Your task to perform on an android device: Clear the cart on walmart. Image 0: 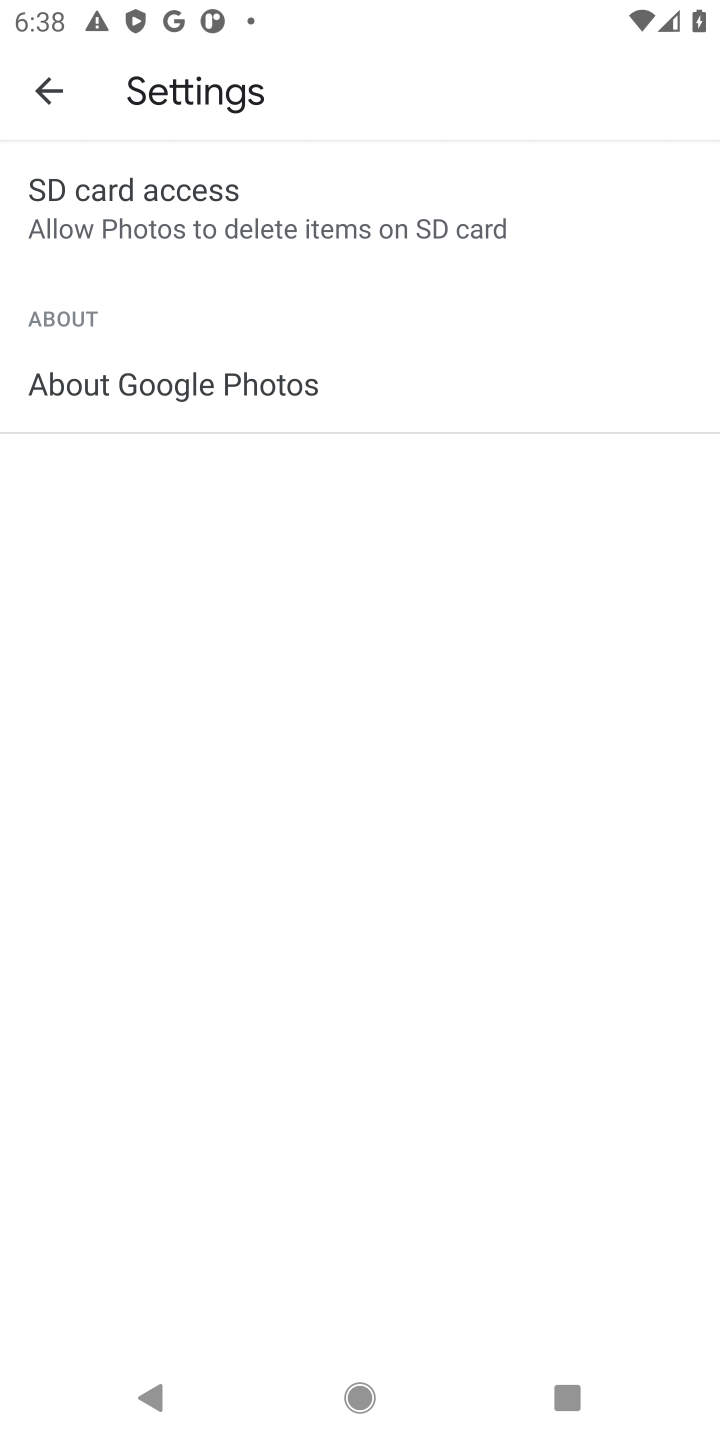
Step 0: press home button
Your task to perform on an android device: Clear the cart on walmart. Image 1: 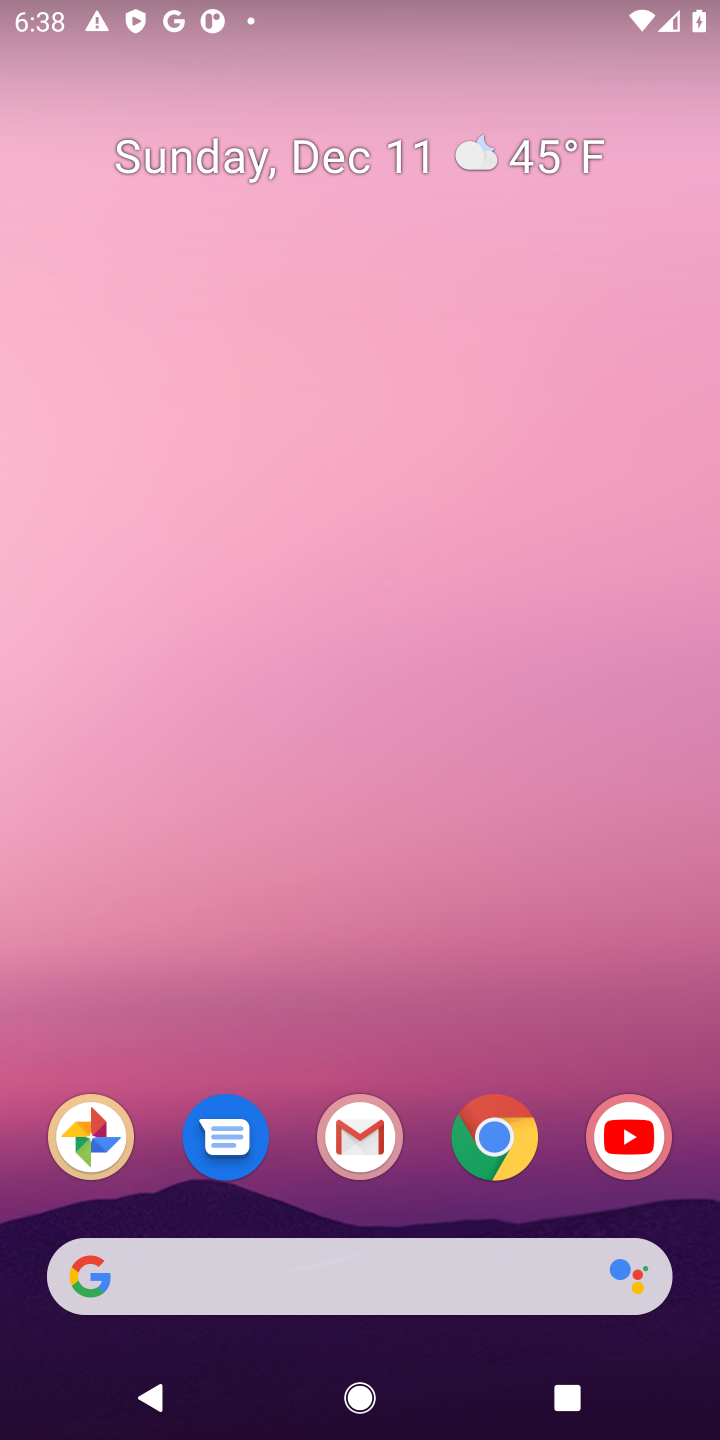
Step 1: click (497, 1185)
Your task to perform on an android device: Clear the cart on walmart. Image 2: 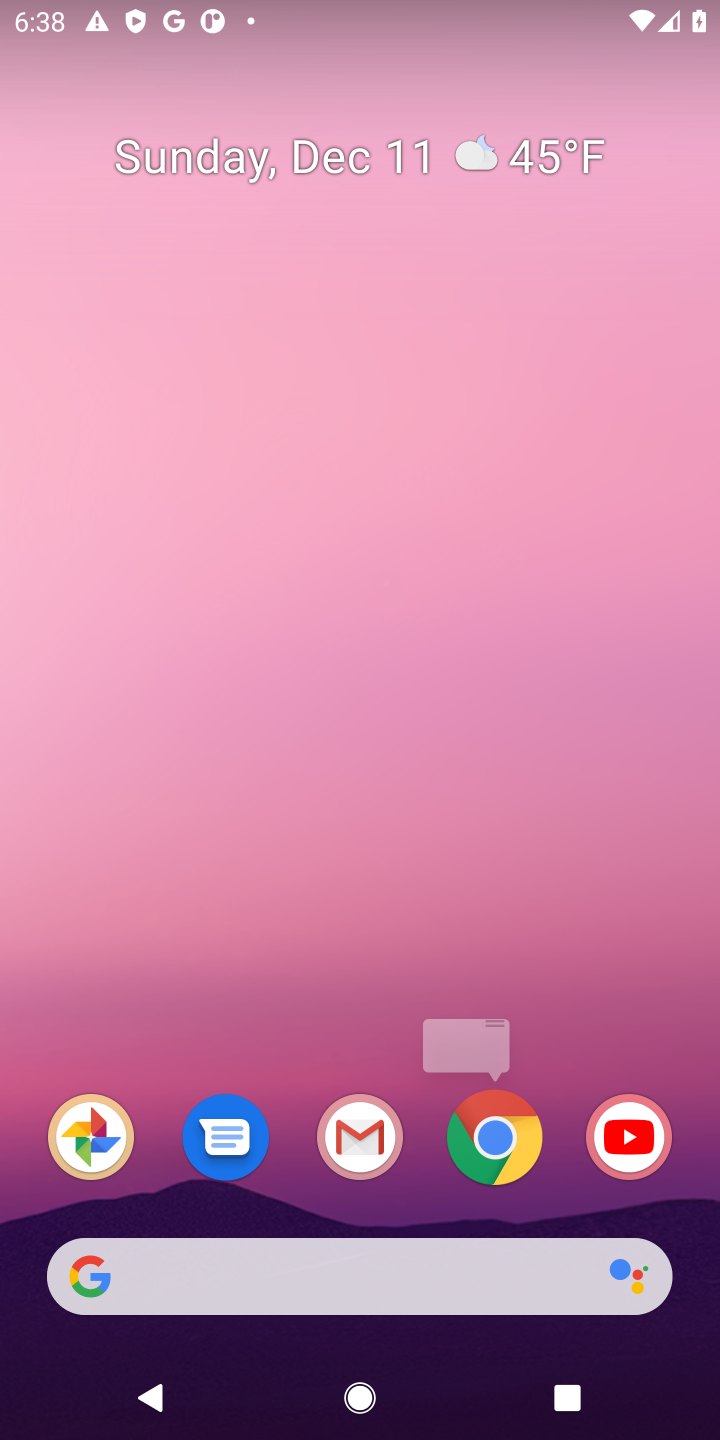
Step 2: click (515, 1135)
Your task to perform on an android device: Clear the cart on walmart. Image 3: 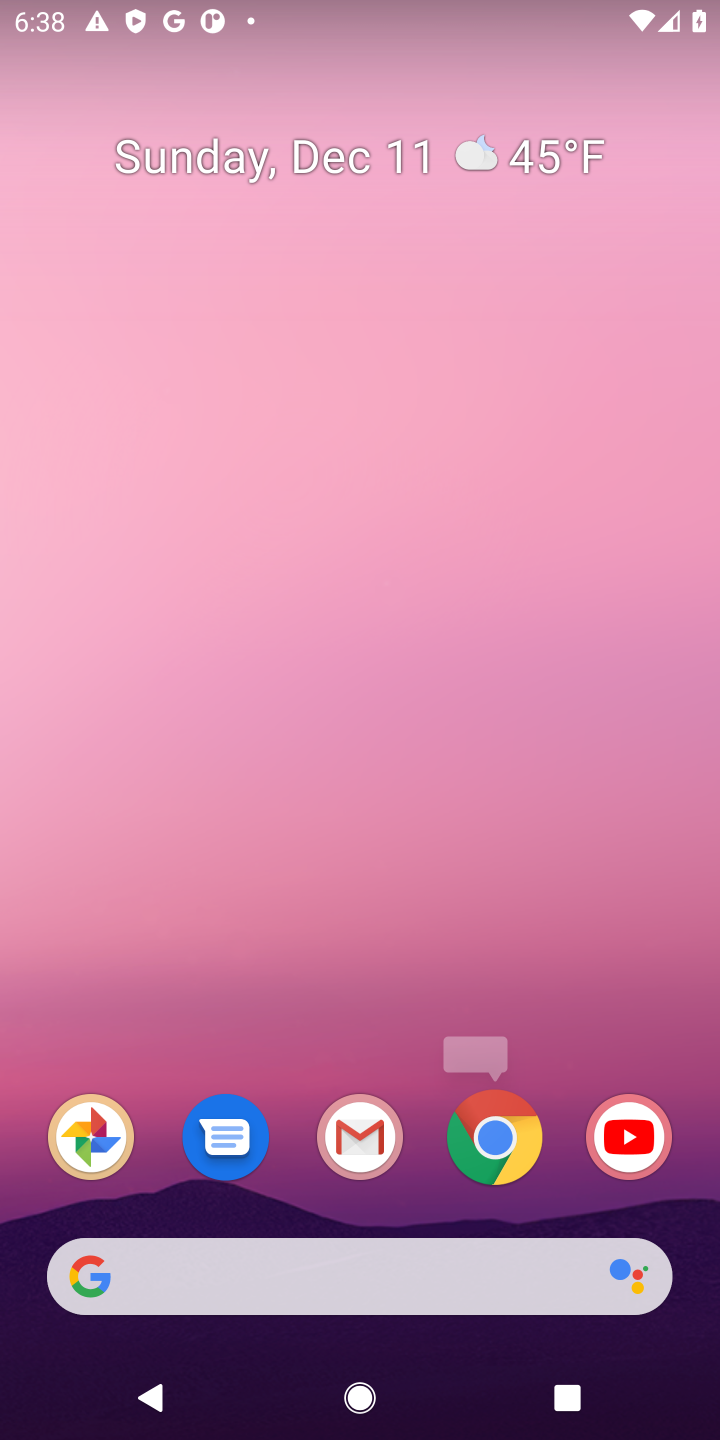
Step 3: click (515, 1135)
Your task to perform on an android device: Clear the cart on walmart. Image 4: 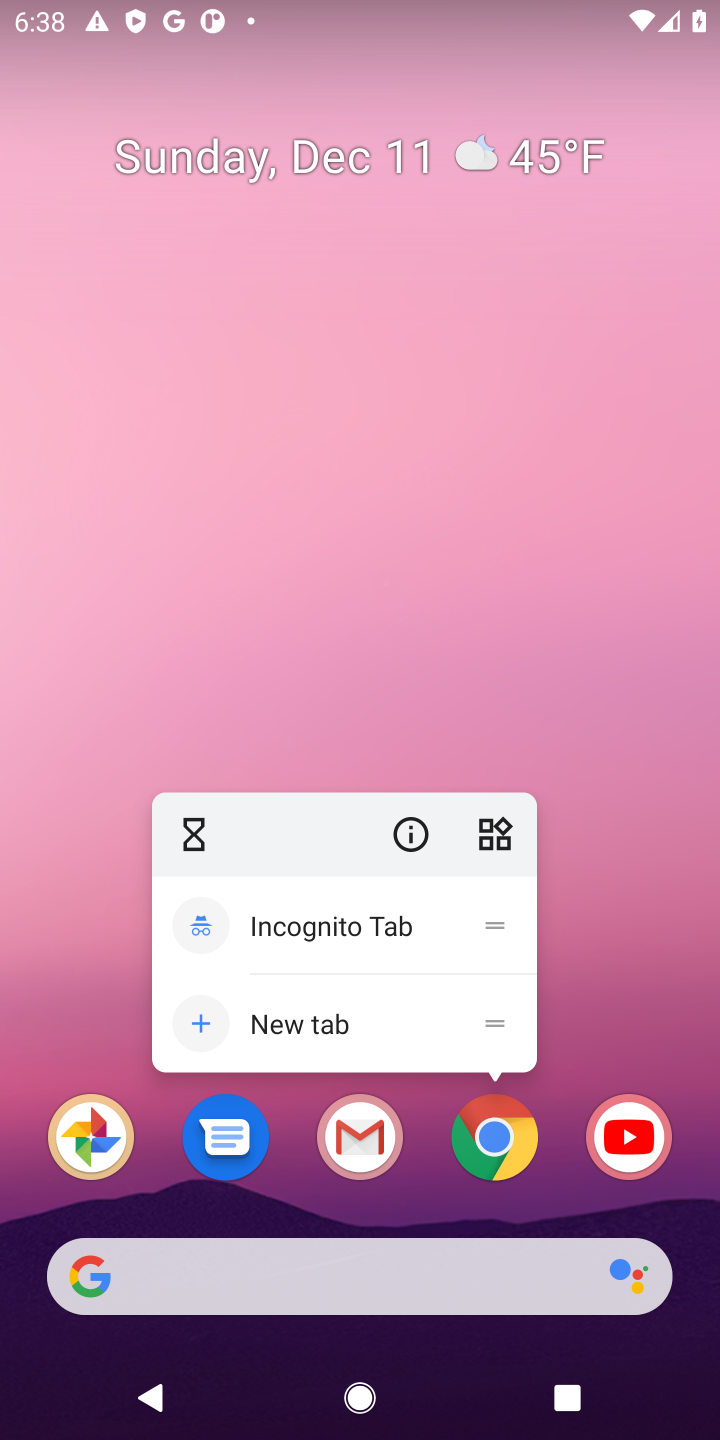
Step 4: click (497, 1132)
Your task to perform on an android device: Clear the cart on walmart. Image 5: 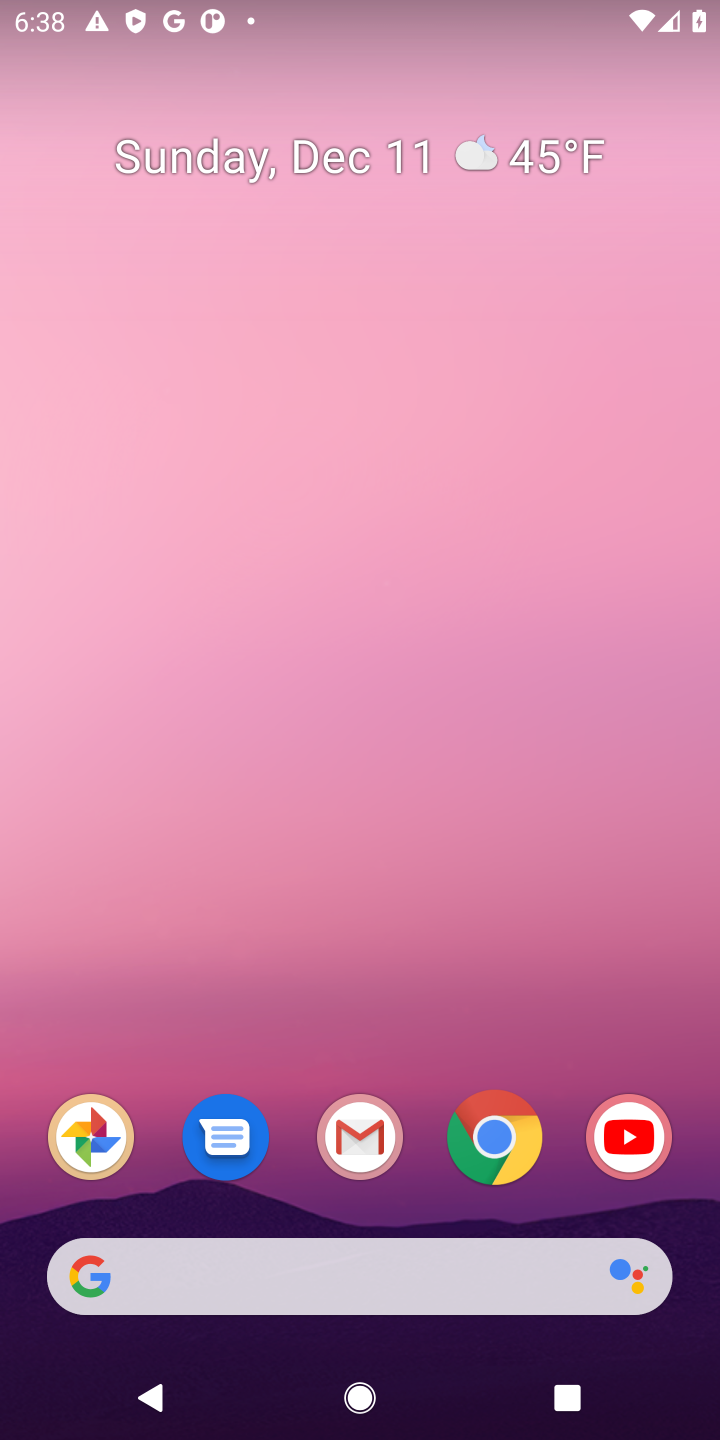
Step 5: click (497, 1132)
Your task to perform on an android device: Clear the cart on walmart. Image 6: 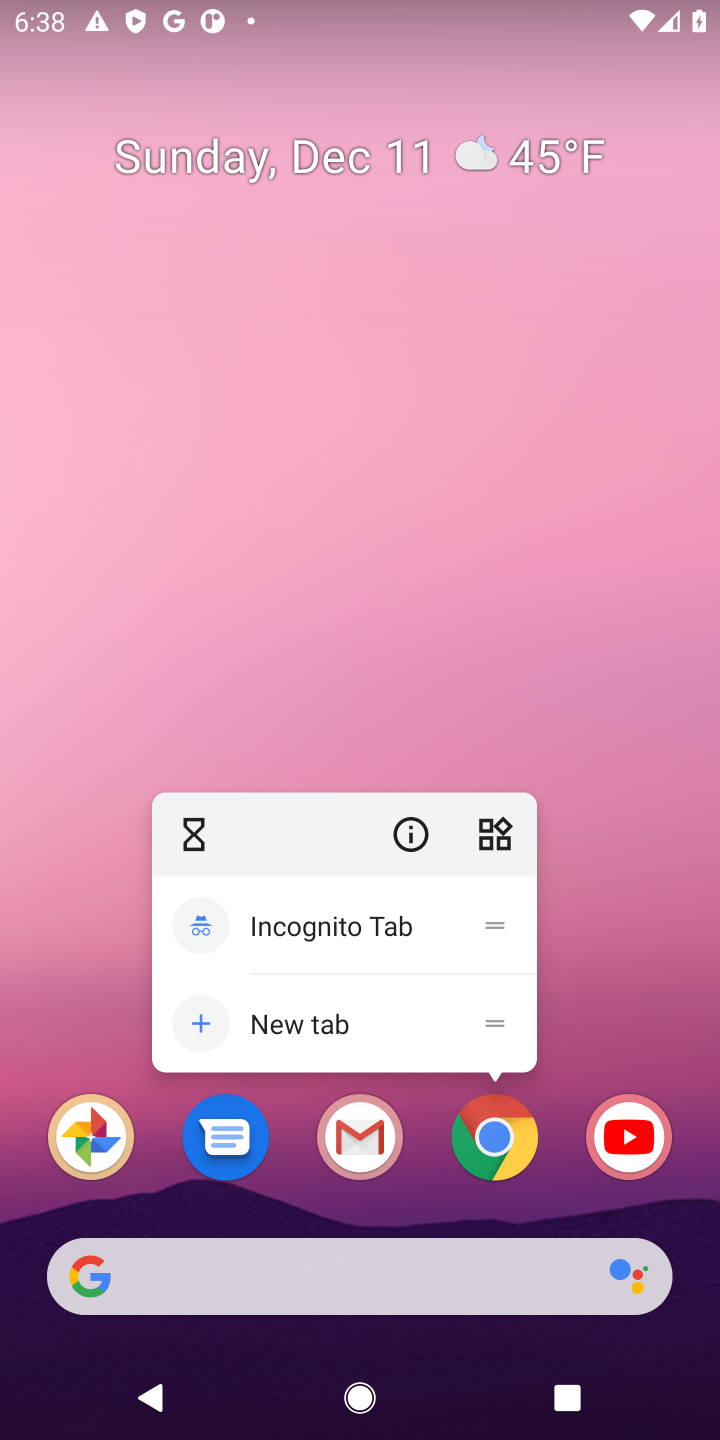
Step 6: click (488, 1140)
Your task to perform on an android device: Clear the cart on walmart. Image 7: 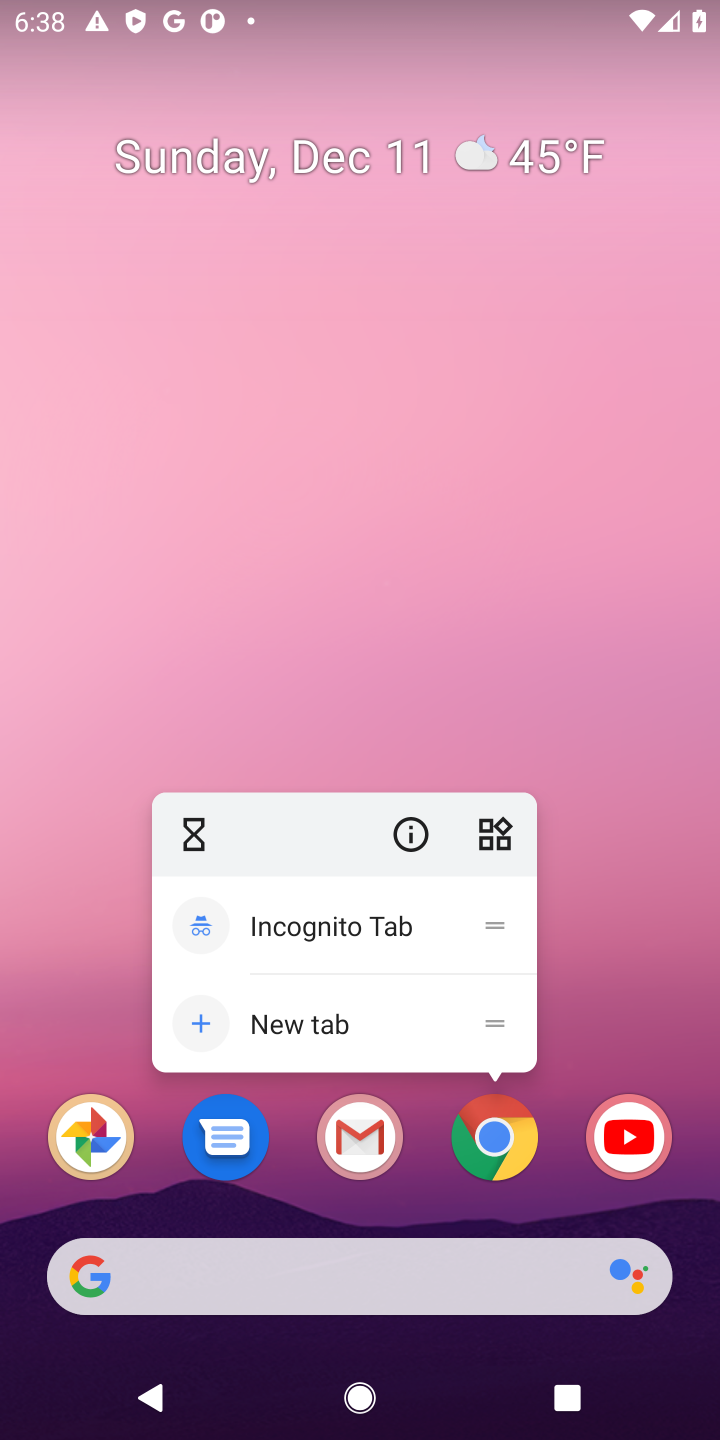
Step 7: click (488, 1140)
Your task to perform on an android device: Clear the cart on walmart. Image 8: 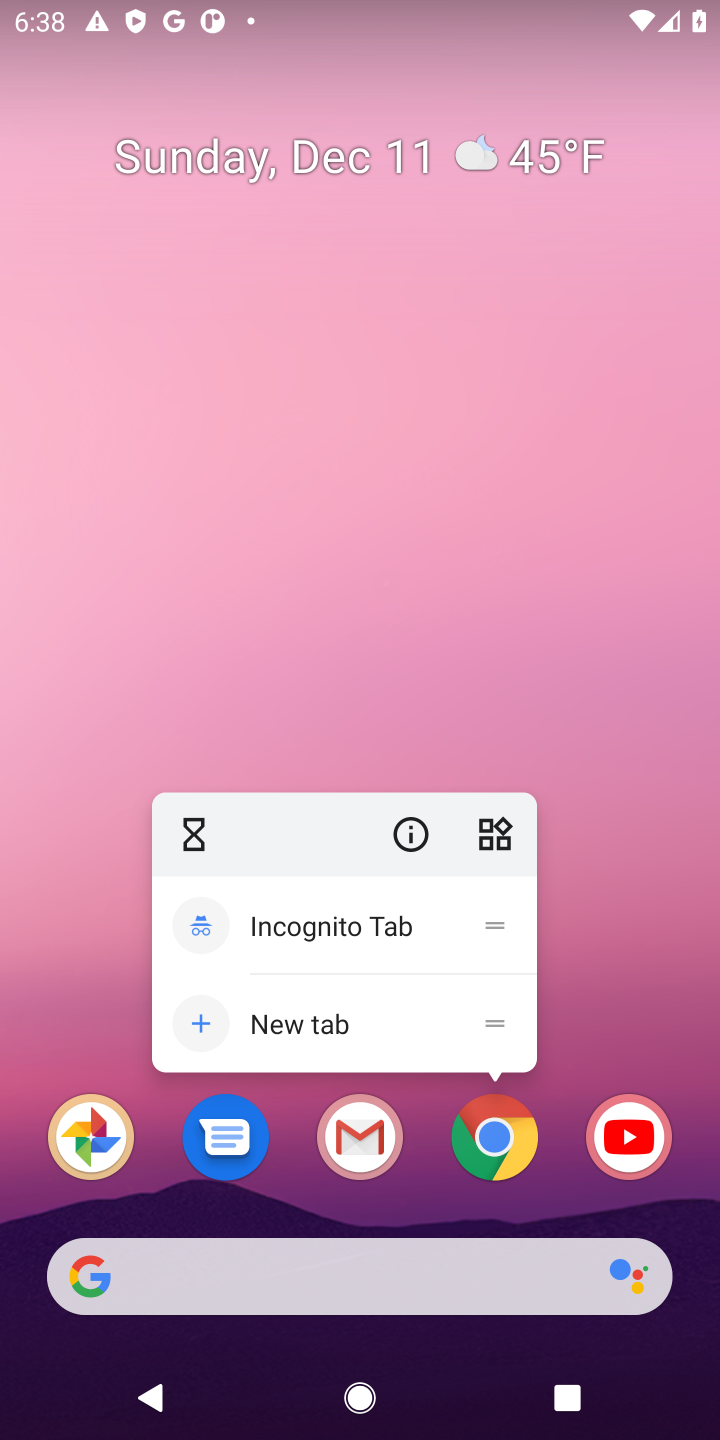
Step 8: click (478, 1136)
Your task to perform on an android device: Clear the cart on walmart. Image 9: 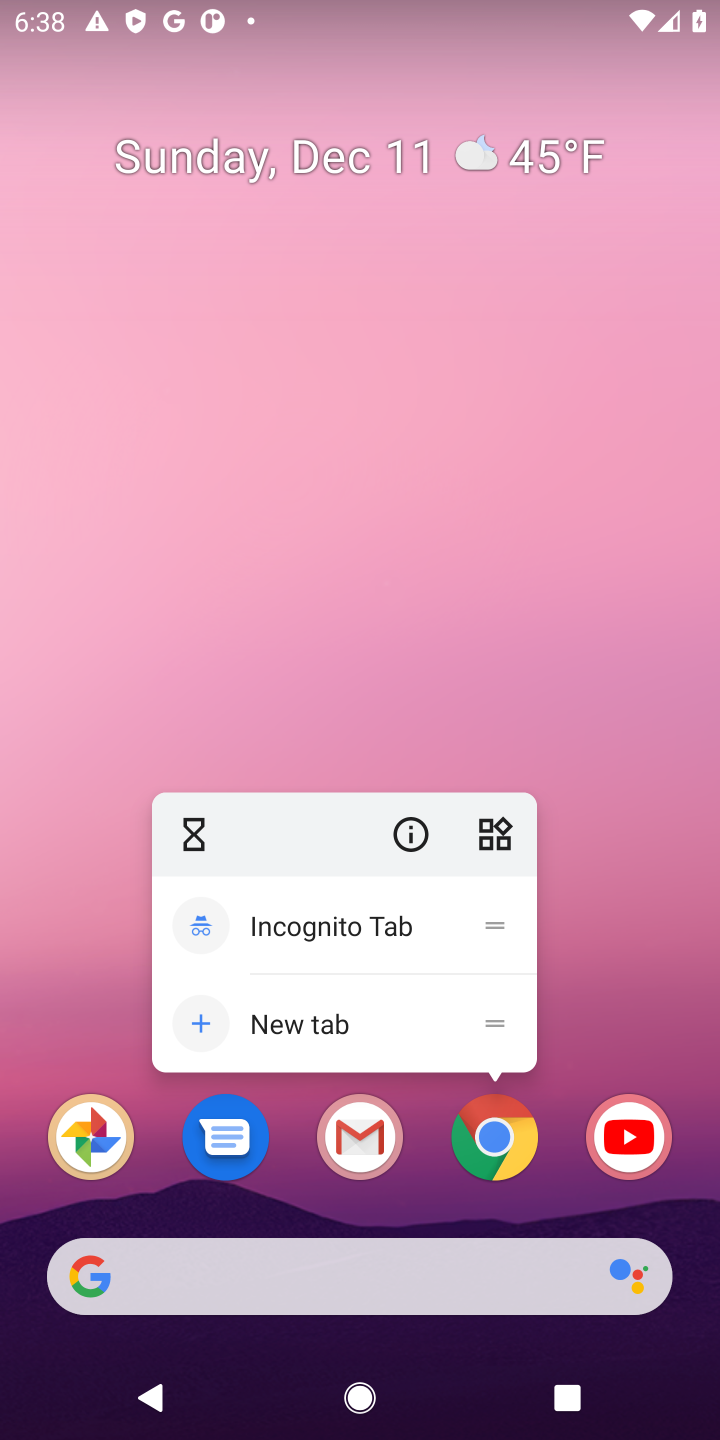
Step 9: click (491, 1136)
Your task to perform on an android device: Clear the cart on walmart. Image 10: 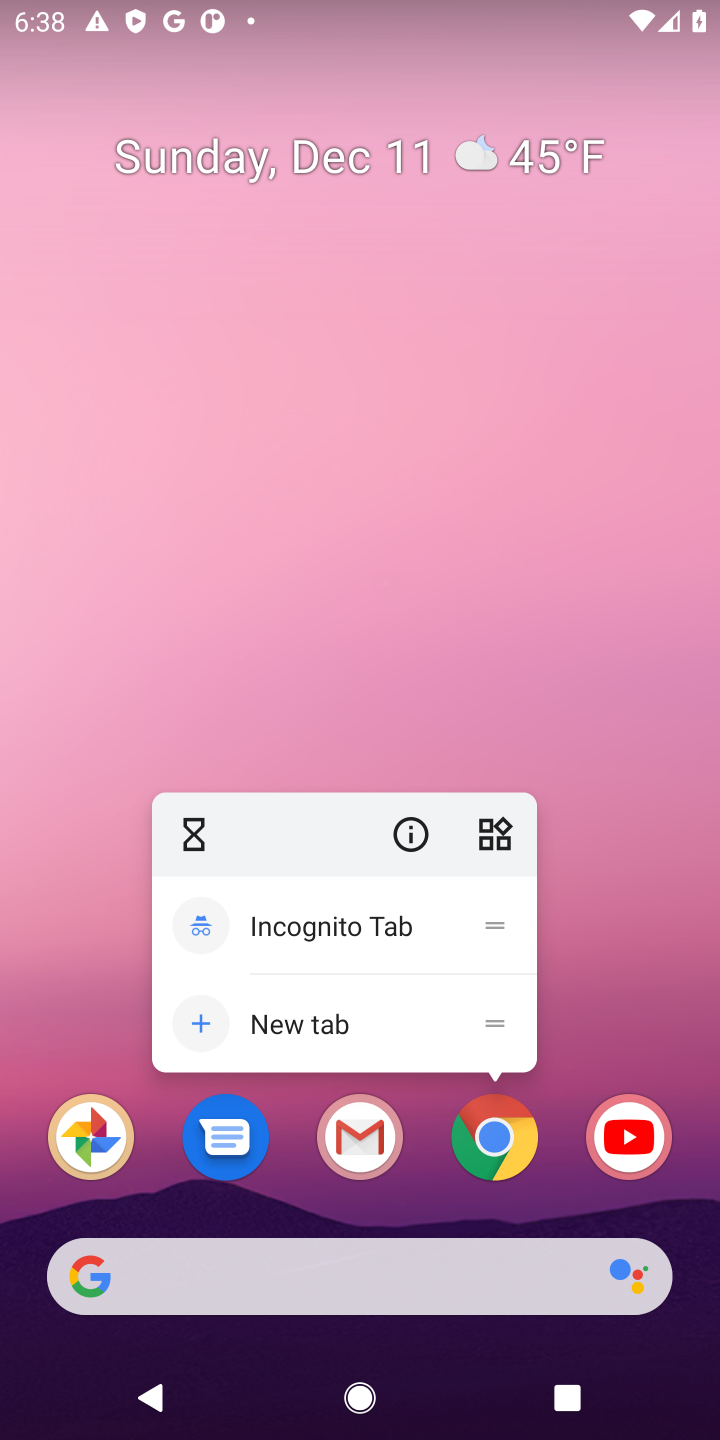
Step 10: click (491, 1136)
Your task to perform on an android device: Clear the cart on walmart. Image 11: 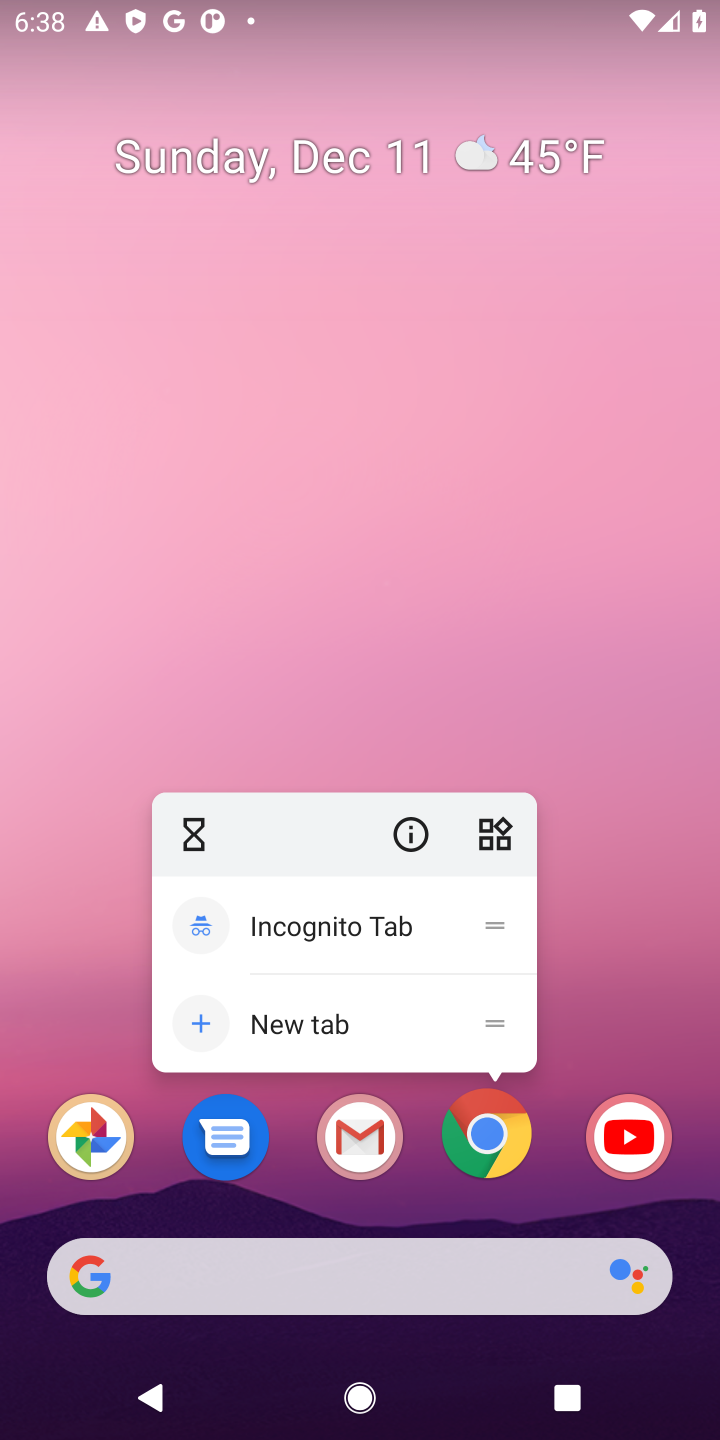
Step 11: click (503, 1143)
Your task to perform on an android device: Clear the cart on walmart. Image 12: 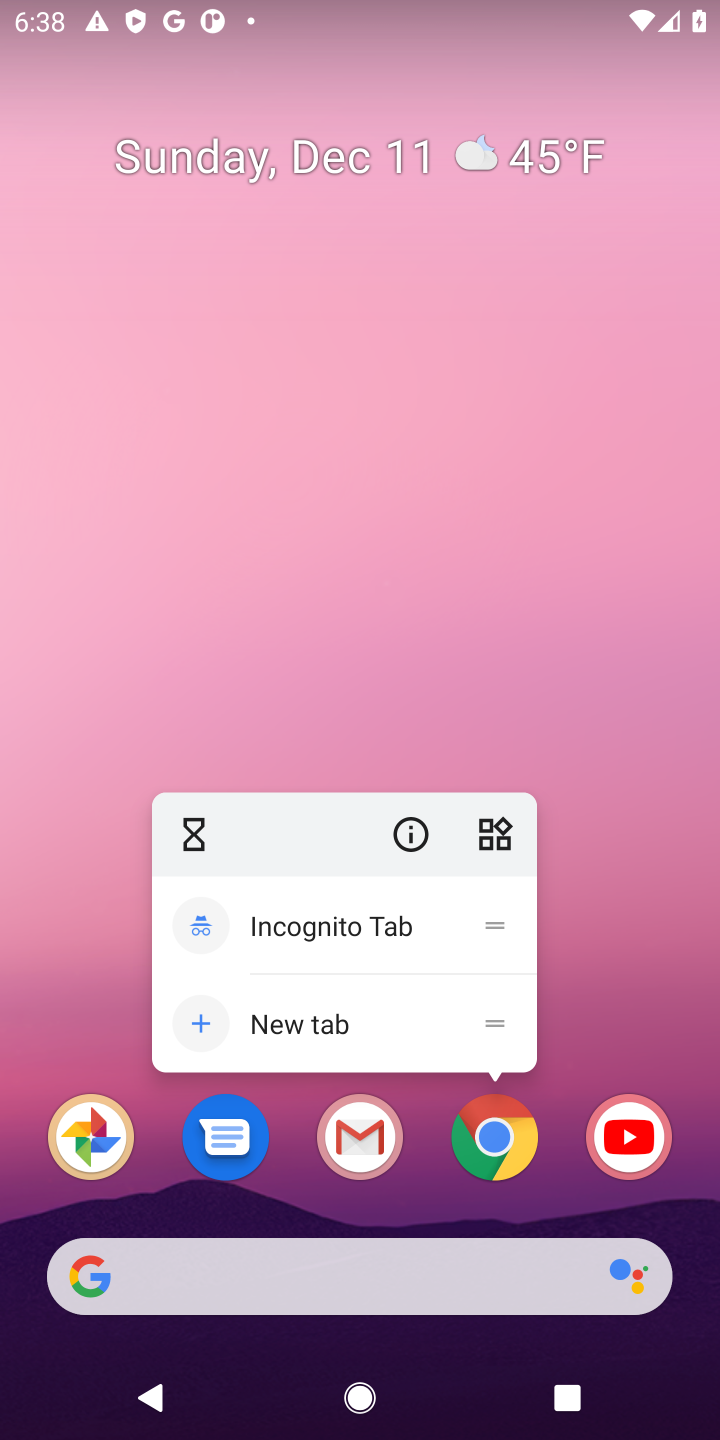
Step 12: click (503, 1143)
Your task to perform on an android device: Clear the cart on walmart. Image 13: 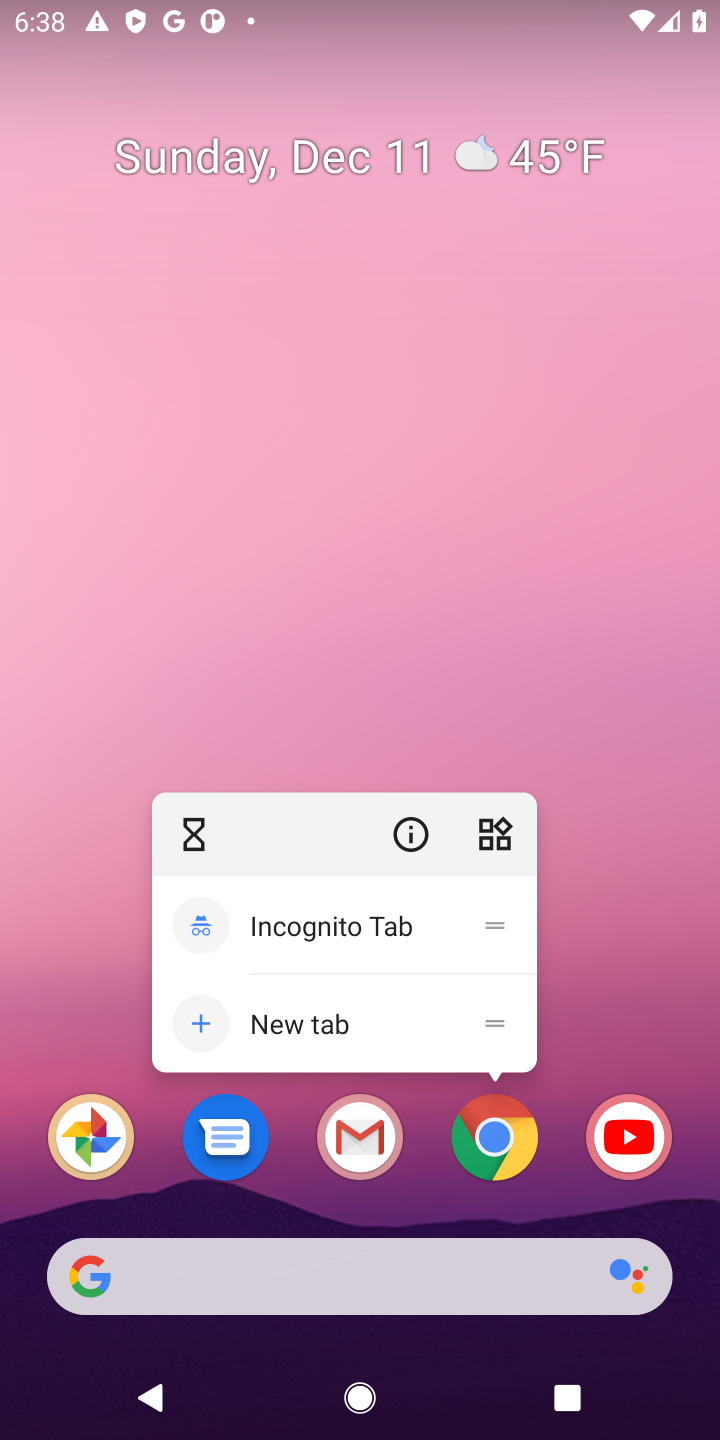
Step 13: click (503, 1143)
Your task to perform on an android device: Clear the cart on walmart. Image 14: 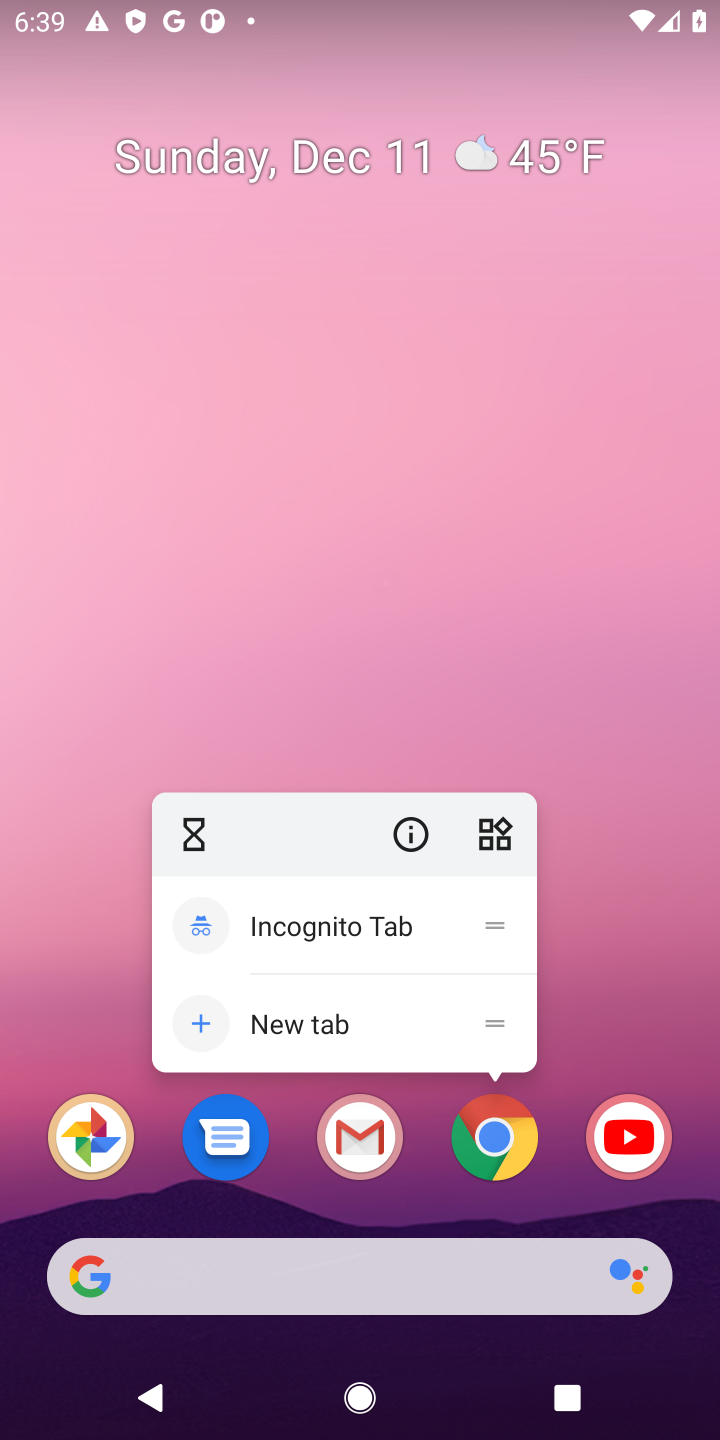
Step 14: click (499, 1130)
Your task to perform on an android device: Clear the cart on walmart. Image 15: 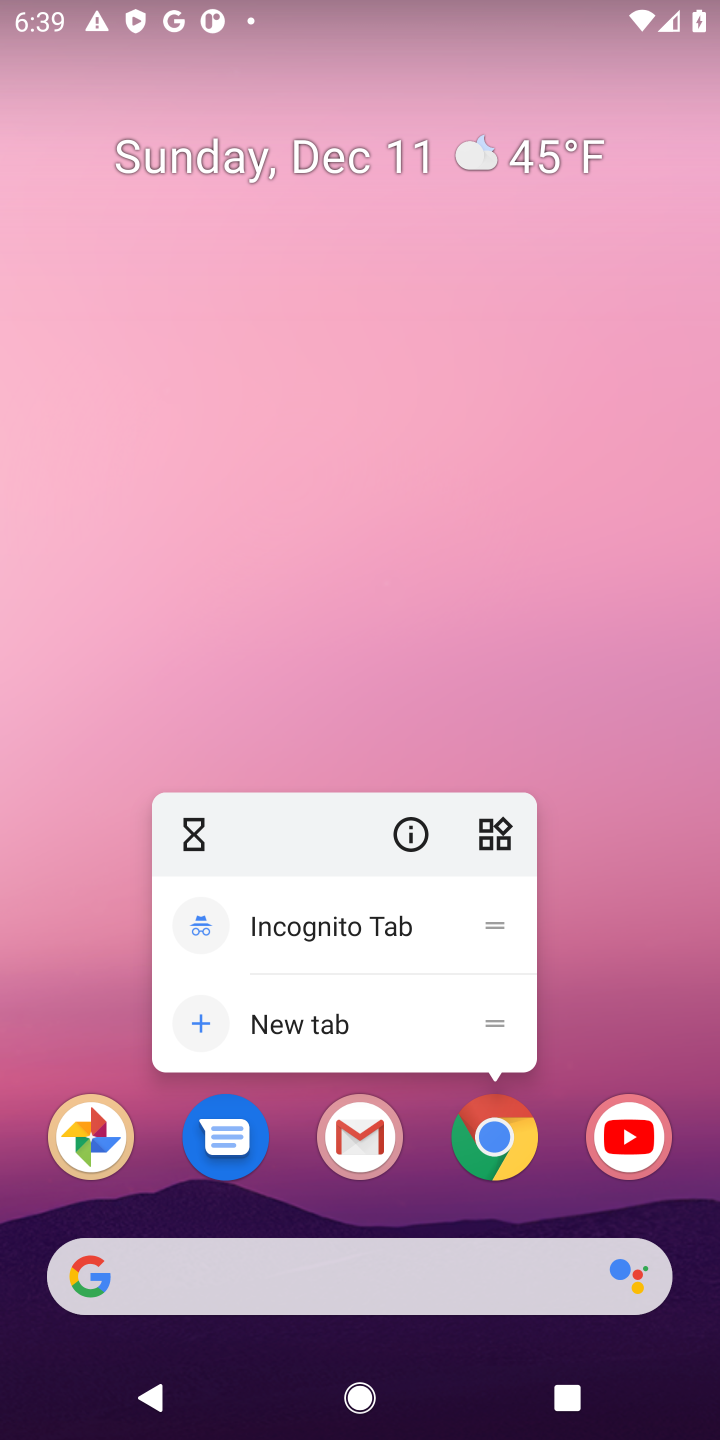
Step 15: click (499, 1130)
Your task to perform on an android device: Clear the cart on walmart. Image 16: 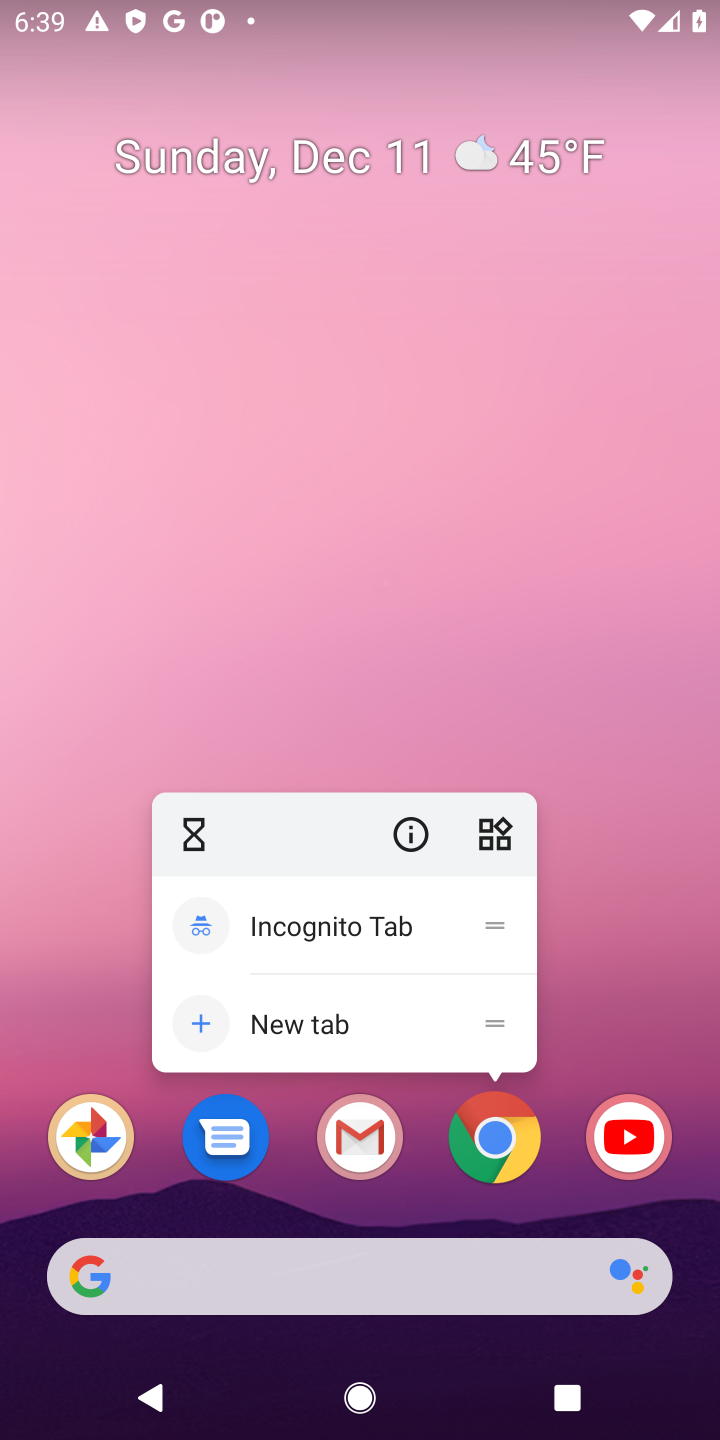
Step 16: click (499, 1130)
Your task to perform on an android device: Clear the cart on walmart. Image 17: 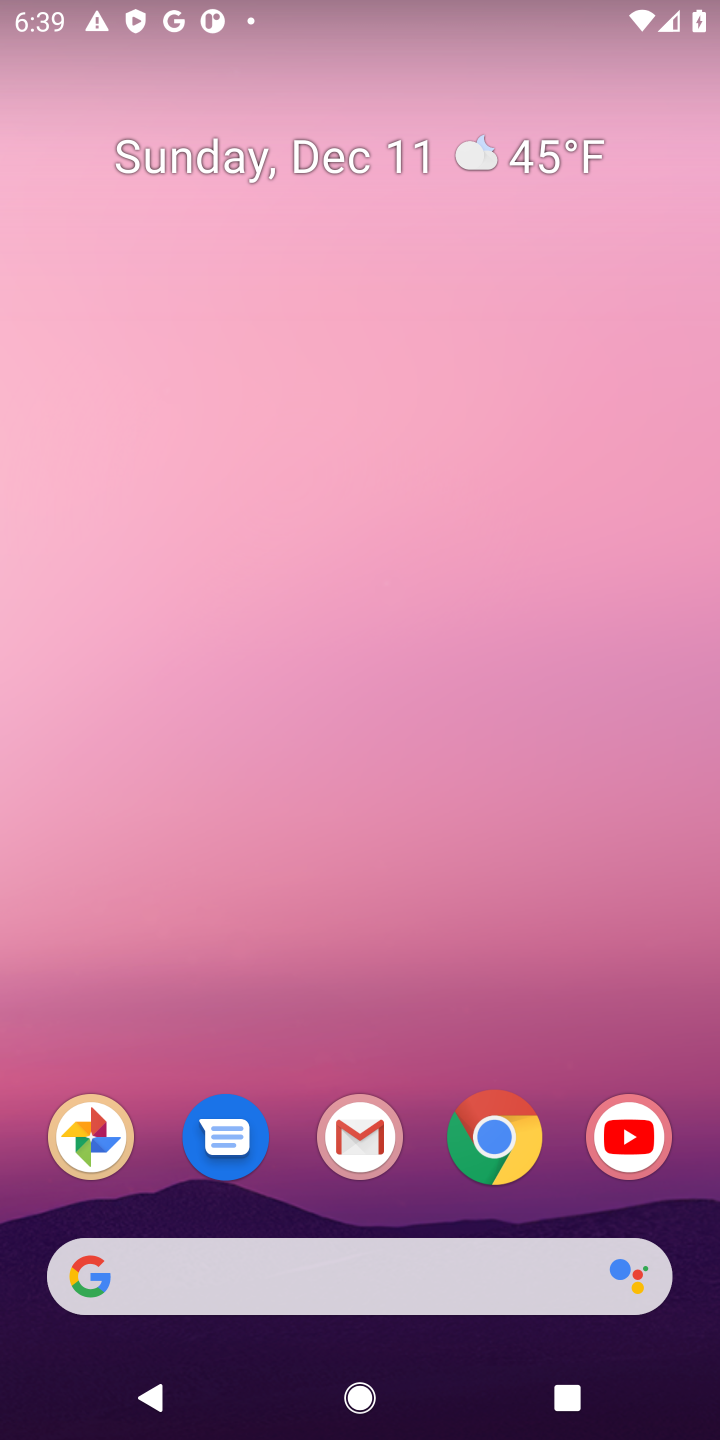
Step 17: click (480, 1168)
Your task to perform on an android device: Clear the cart on walmart. Image 18: 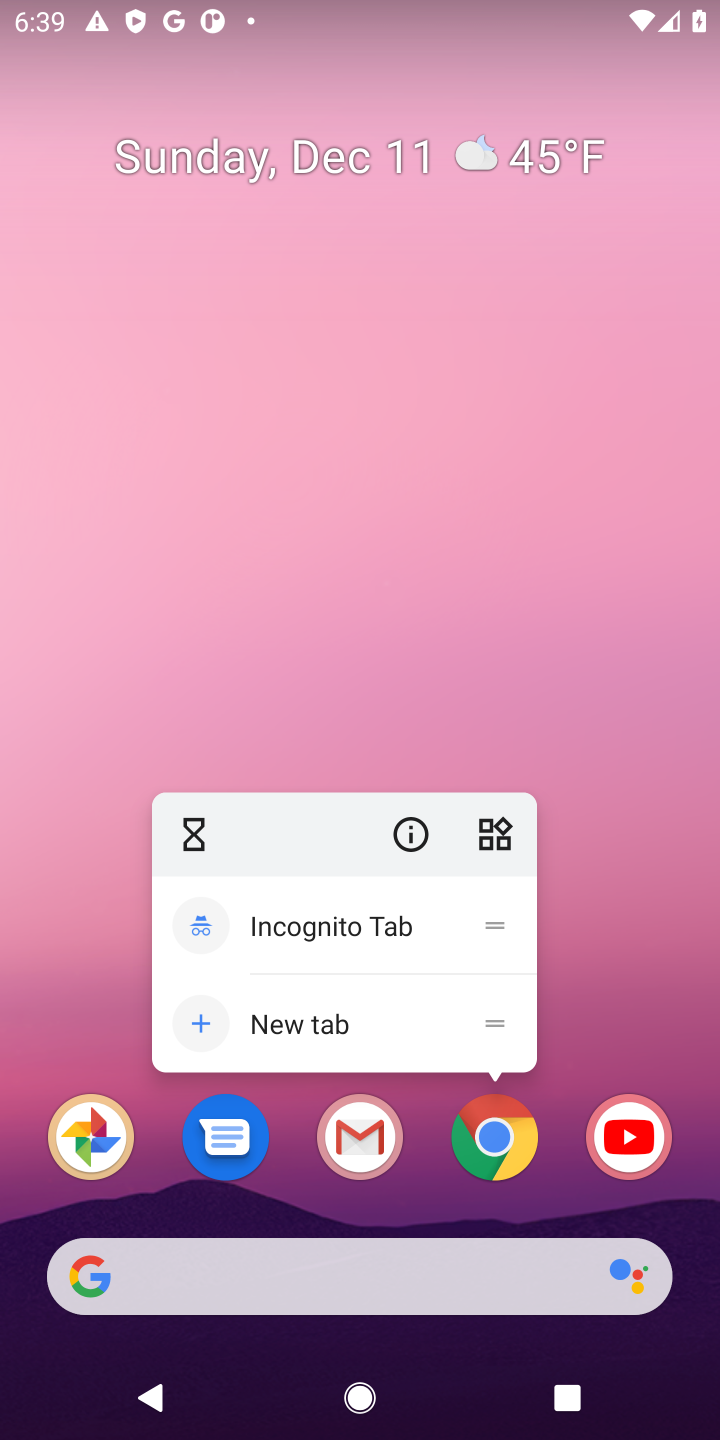
Step 18: click (374, 1045)
Your task to perform on an android device: Clear the cart on walmart. Image 19: 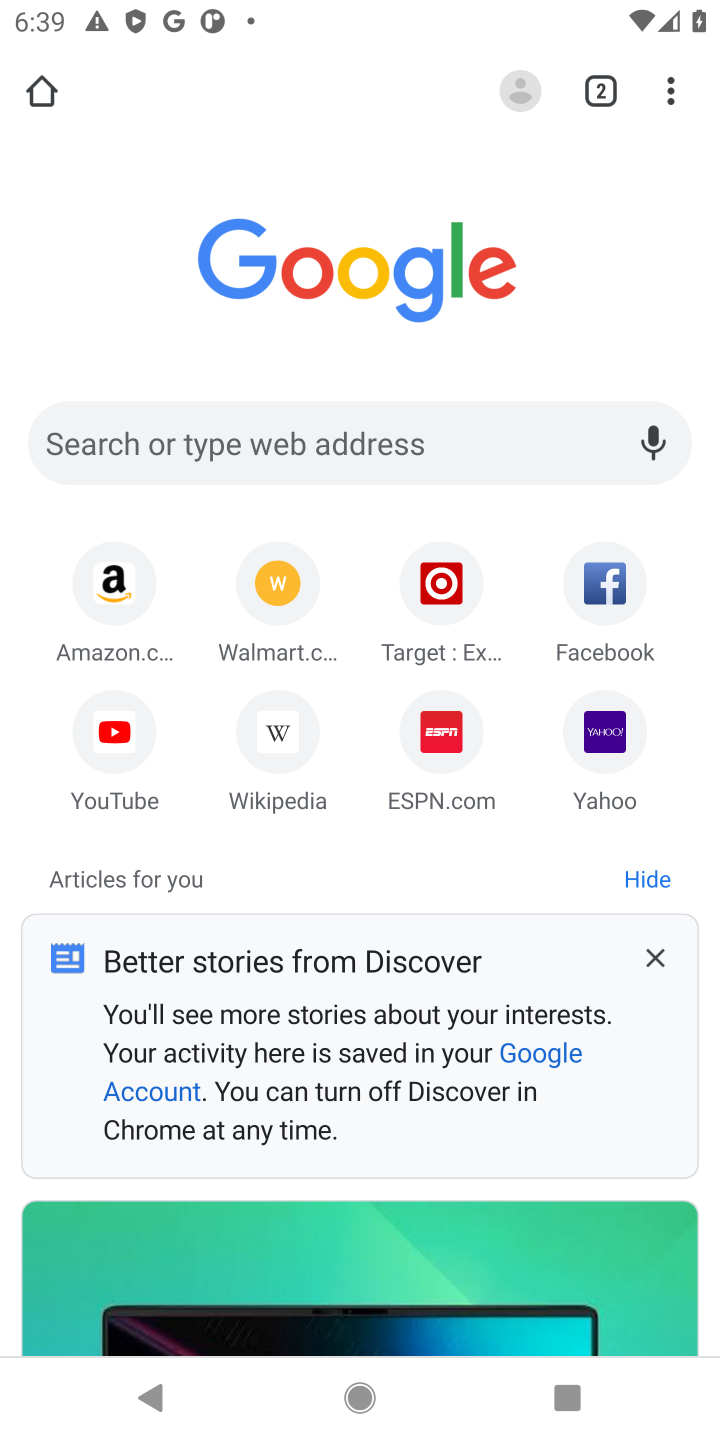
Step 19: click (215, 426)
Your task to perform on an android device: Clear the cart on walmart. Image 20: 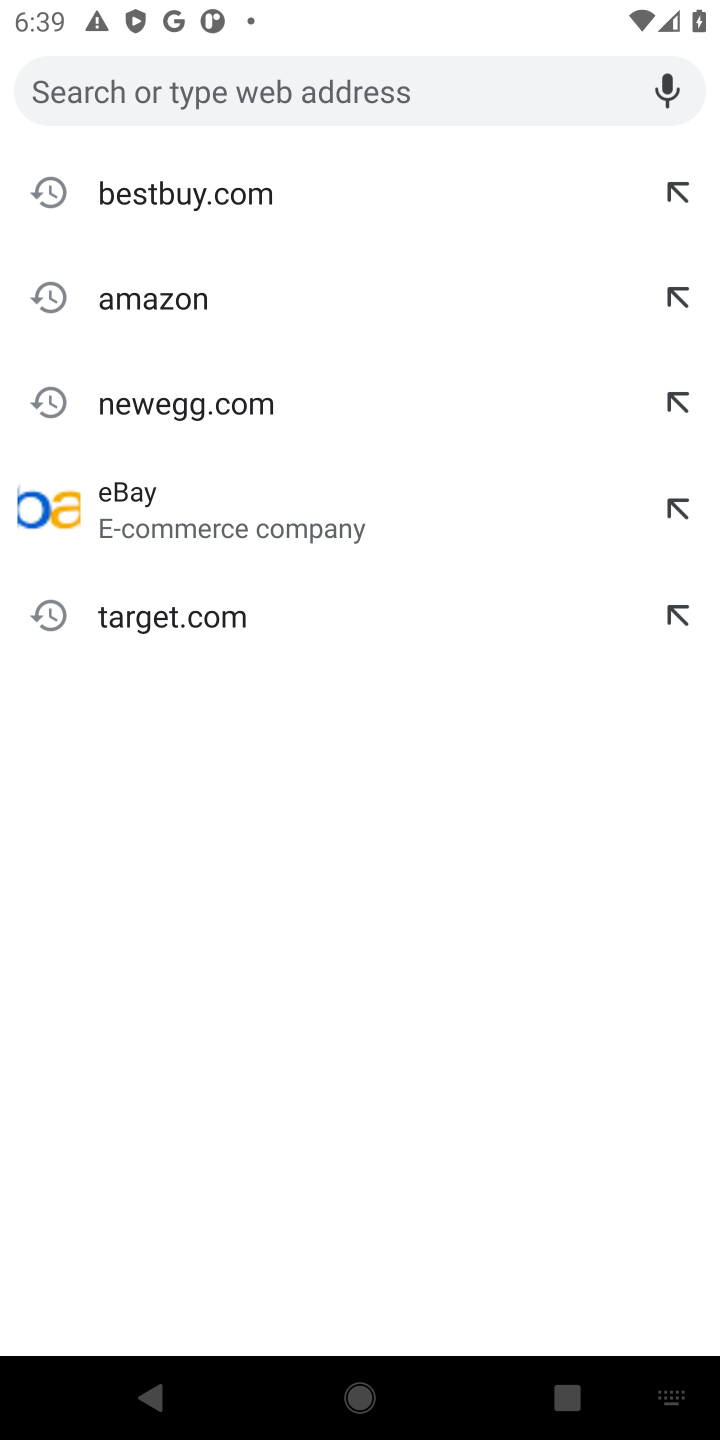
Step 20: press back button
Your task to perform on an android device: Clear the cart on walmart. Image 21: 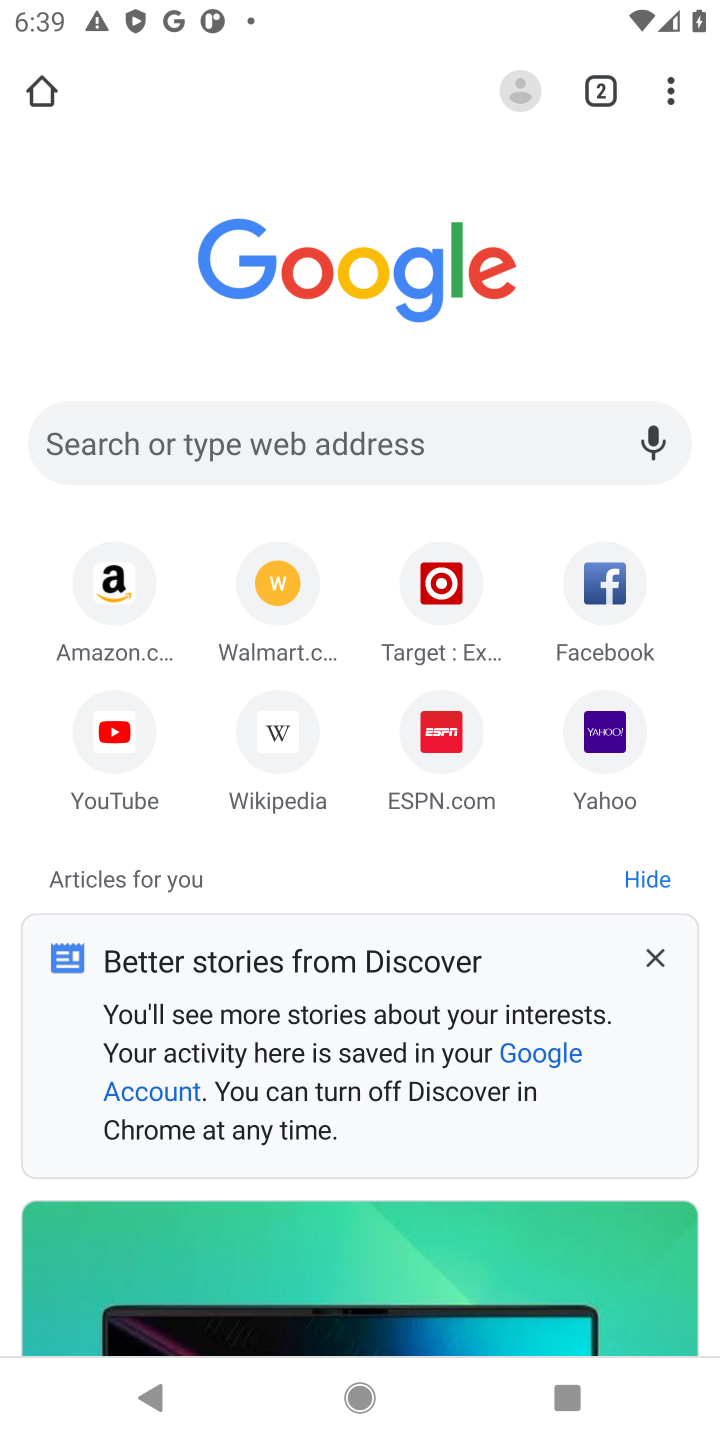
Step 21: click (281, 566)
Your task to perform on an android device: Clear the cart on walmart. Image 22: 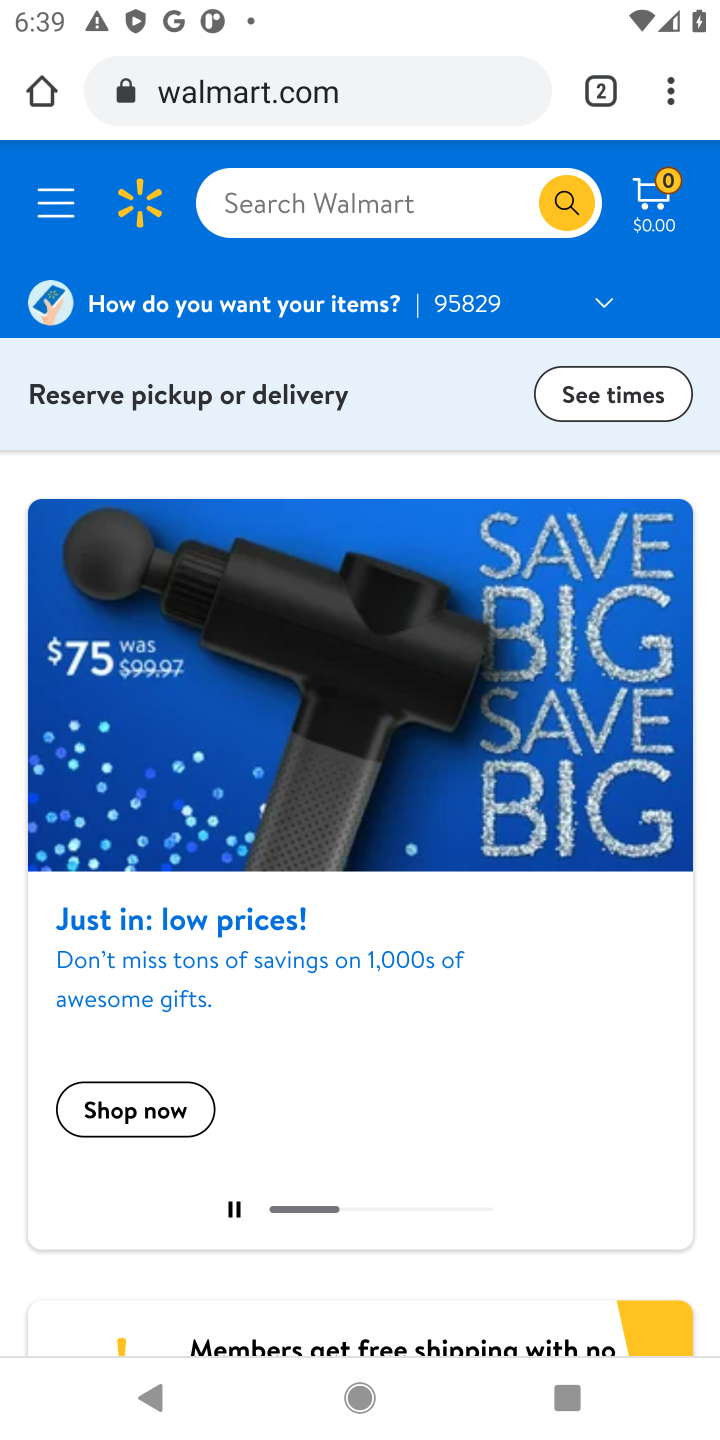
Step 22: click (647, 178)
Your task to perform on an android device: Clear the cart on walmart. Image 23: 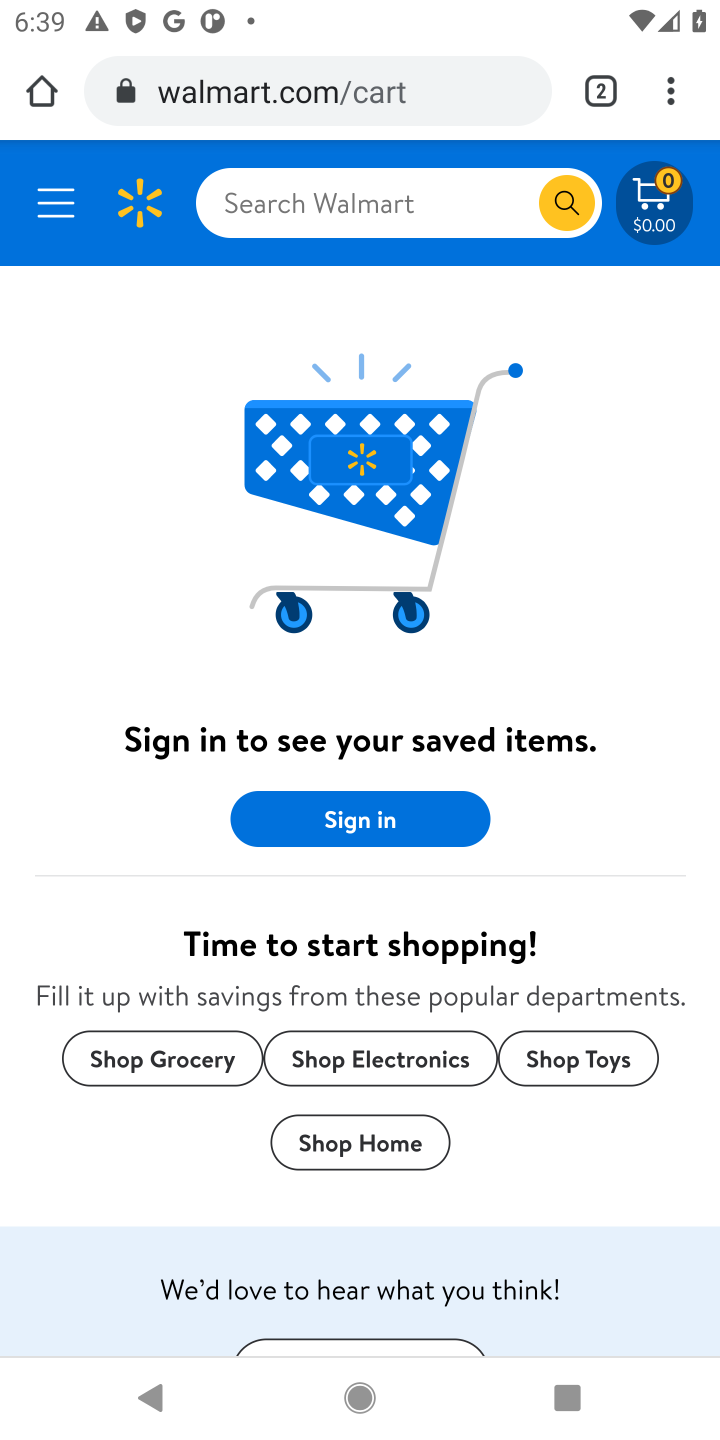
Step 23: task complete